Your task to perform on an android device: install app "Expedia: Hotels, Flights & Car" Image 0: 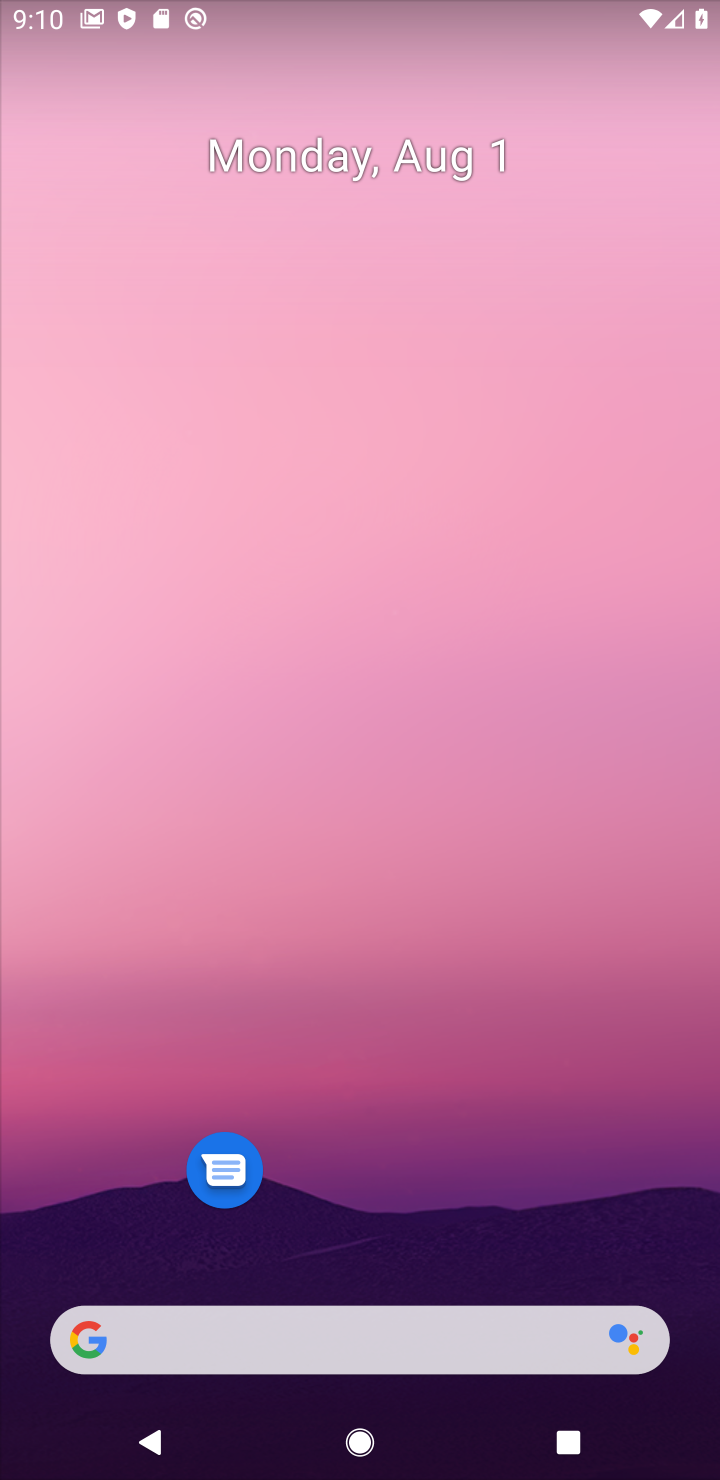
Step 0: drag from (435, 457) to (281, 817)
Your task to perform on an android device: install app "Expedia: Hotels, Flights & Car" Image 1: 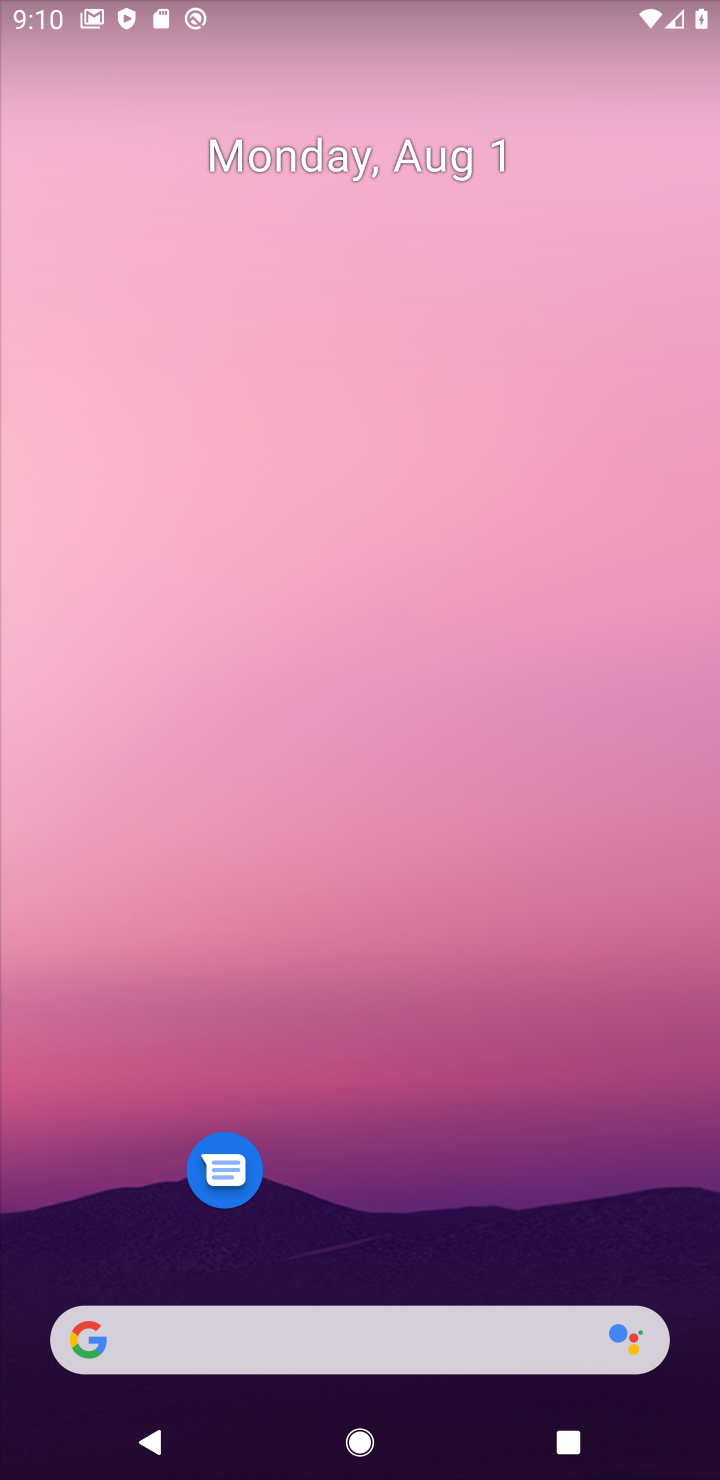
Step 1: drag from (472, 1092) to (404, 615)
Your task to perform on an android device: install app "Expedia: Hotels, Flights & Car" Image 2: 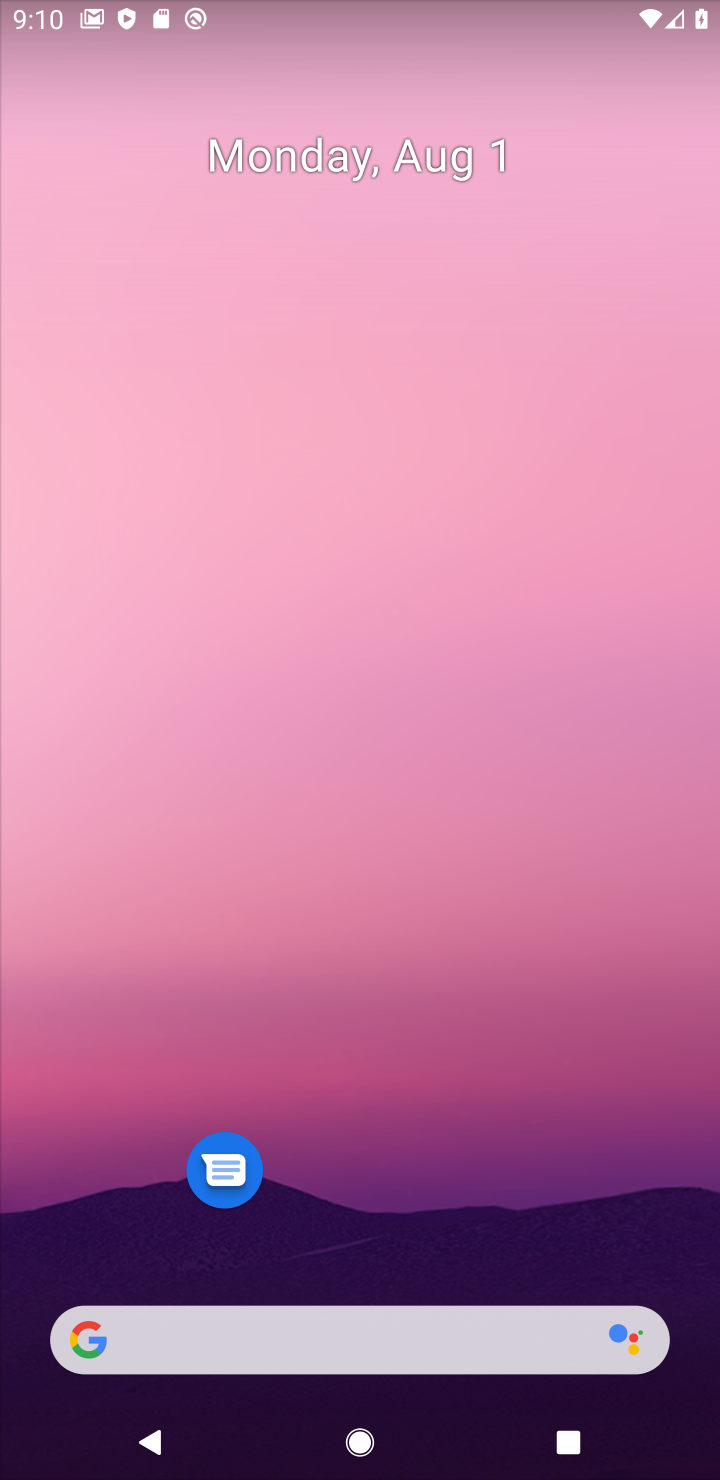
Step 2: drag from (462, 748) to (295, 224)
Your task to perform on an android device: install app "Expedia: Hotels, Flights & Car" Image 3: 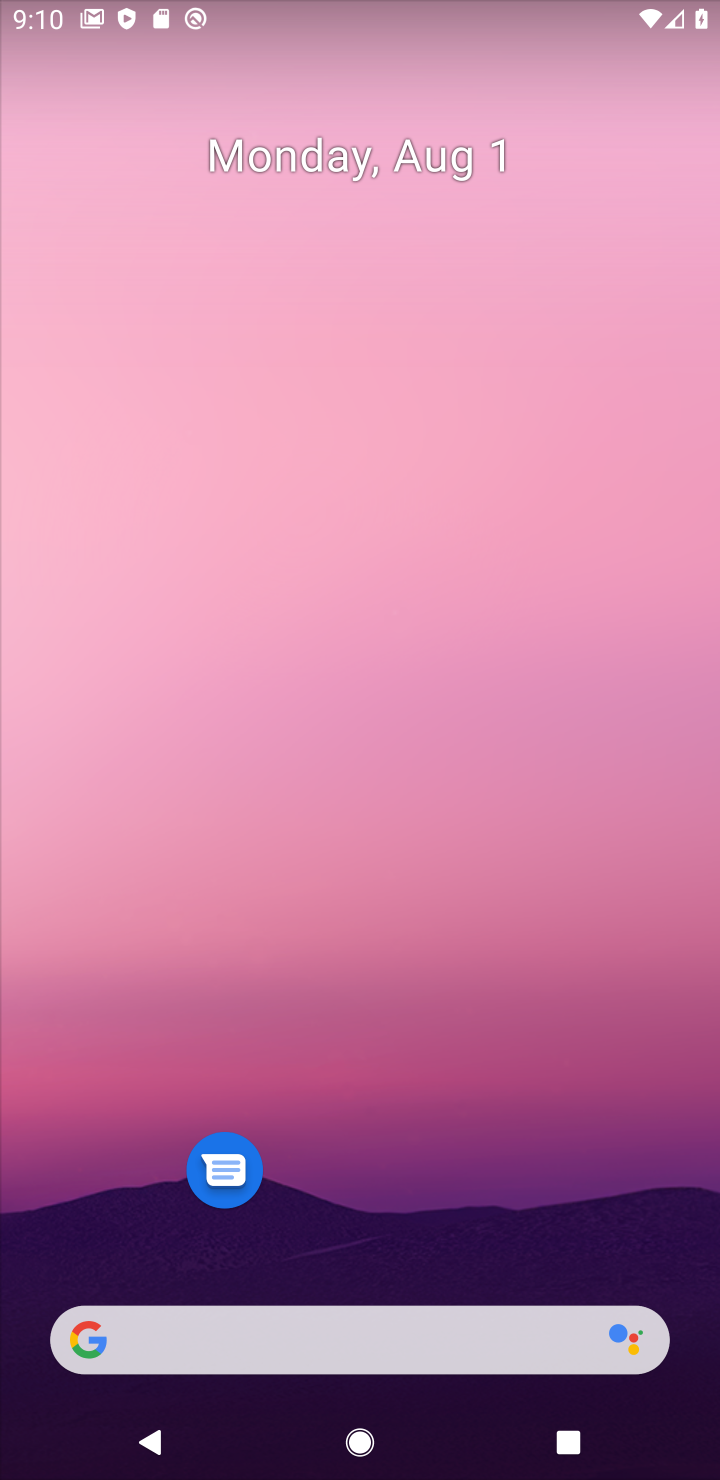
Step 3: drag from (358, 822) to (337, 332)
Your task to perform on an android device: install app "Expedia: Hotels, Flights & Car" Image 4: 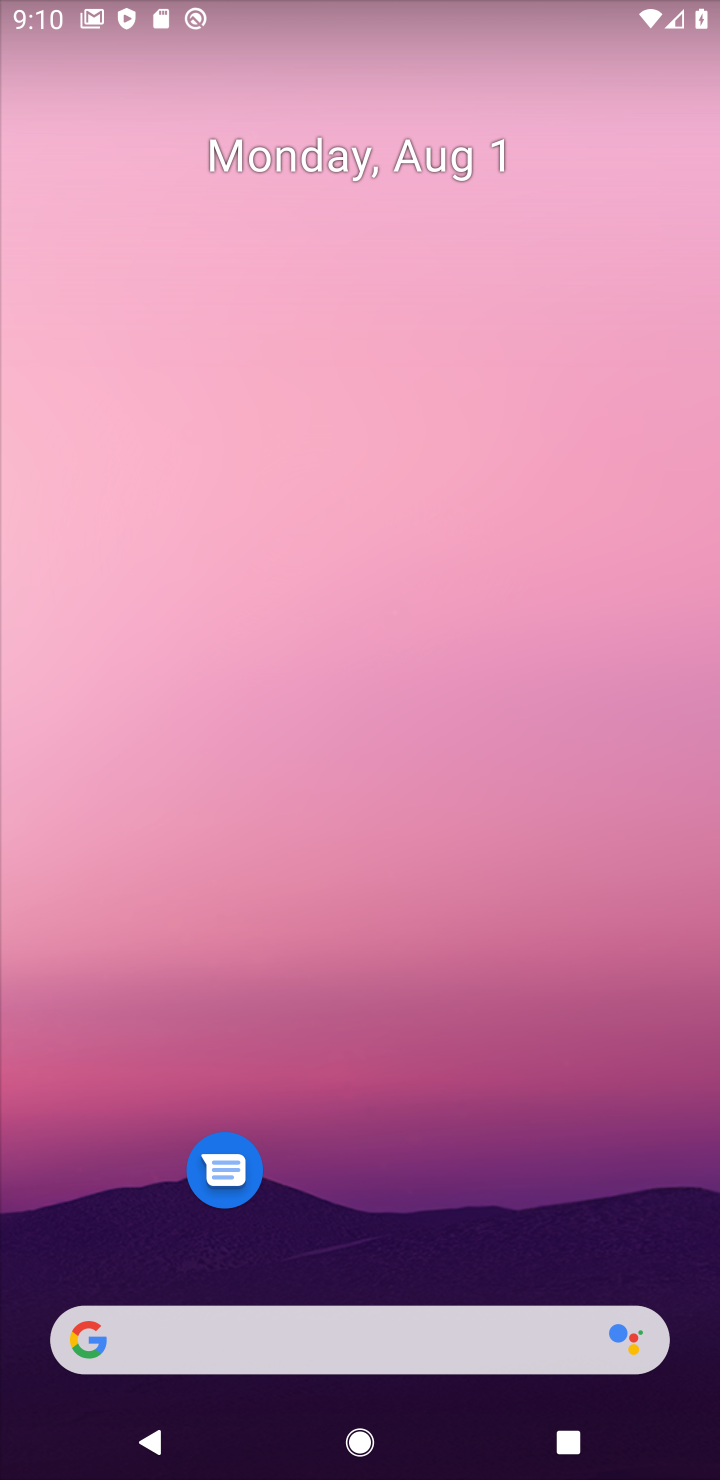
Step 4: drag from (300, 68) to (357, 346)
Your task to perform on an android device: install app "Expedia: Hotels, Flights & Car" Image 5: 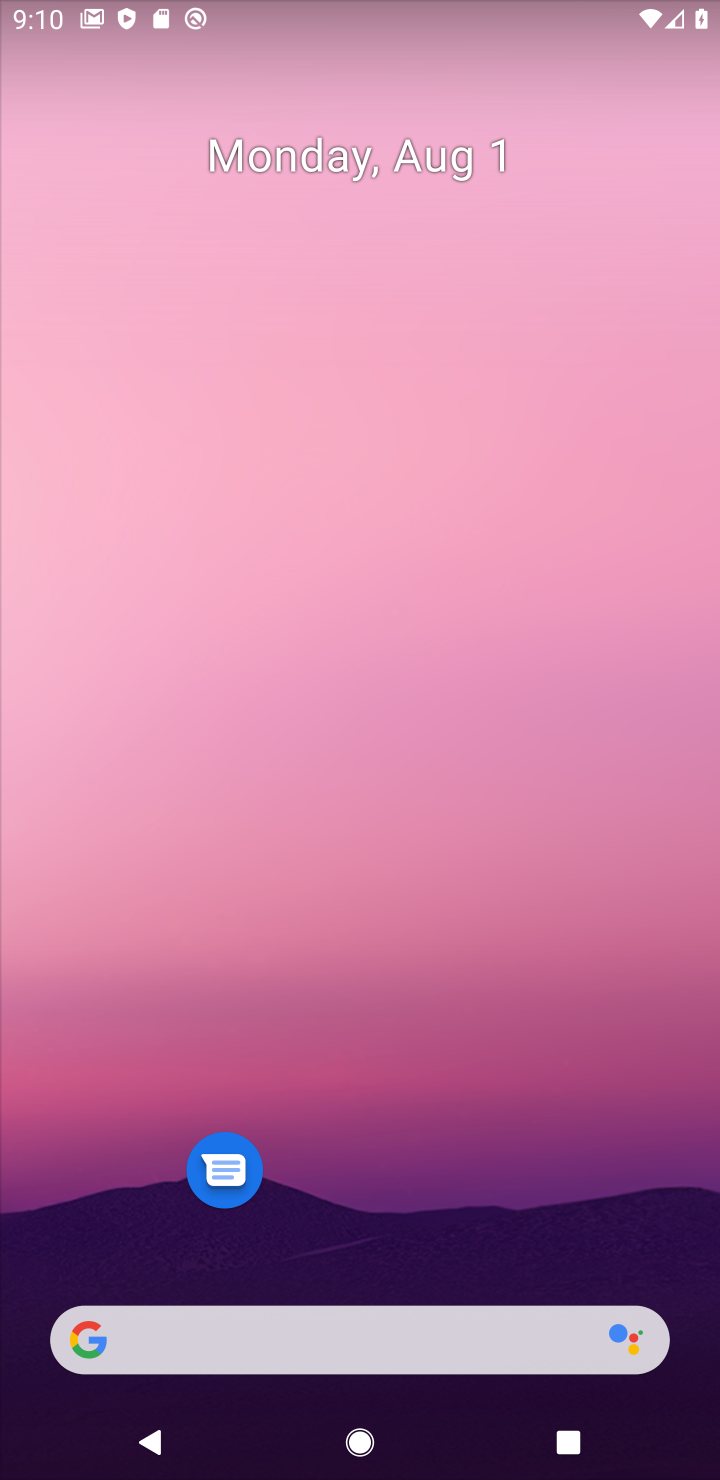
Step 5: drag from (364, 513) to (325, 218)
Your task to perform on an android device: install app "Expedia: Hotels, Flights & Car" Image 6: 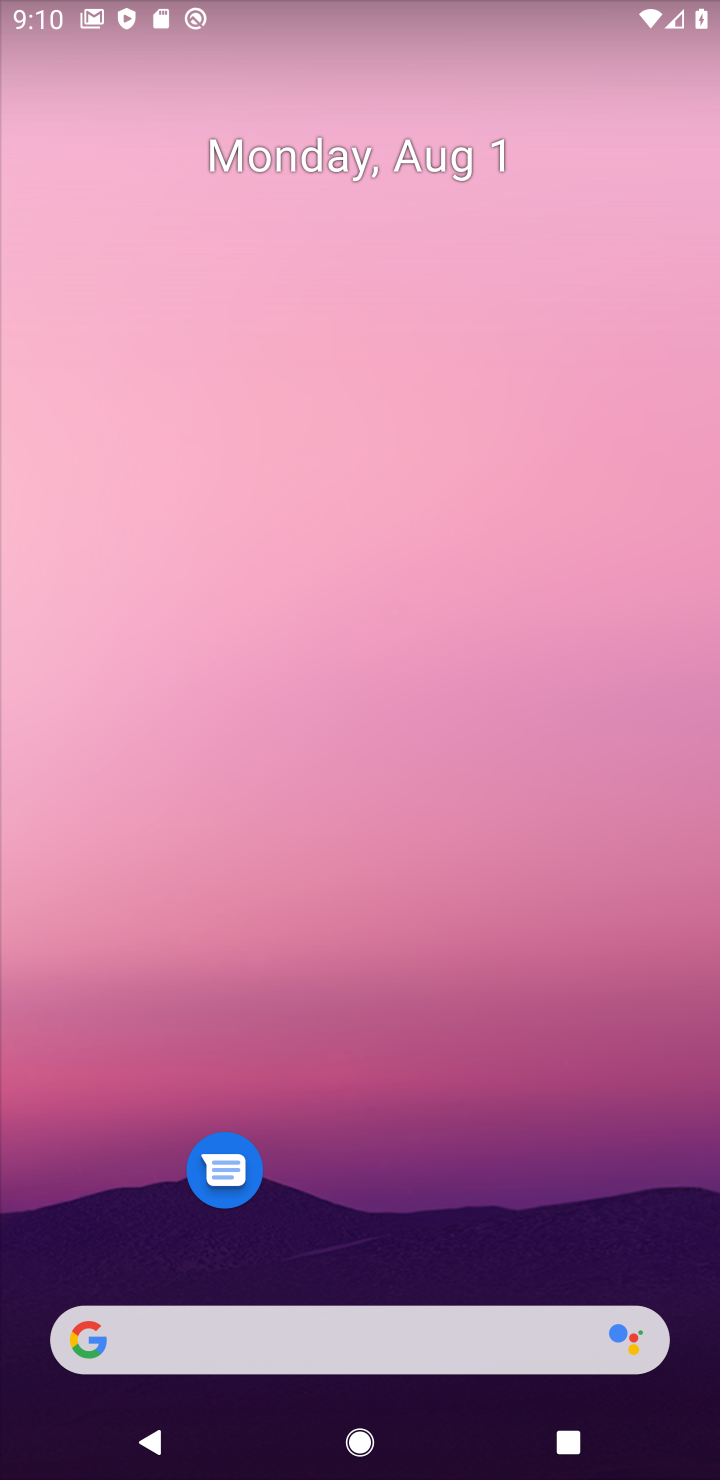
Step 6: drag from (242, 933) to (401, 121)
Your task to perform on an android device: install app "Expedia: Hotels, Flights & Car" Image 7: 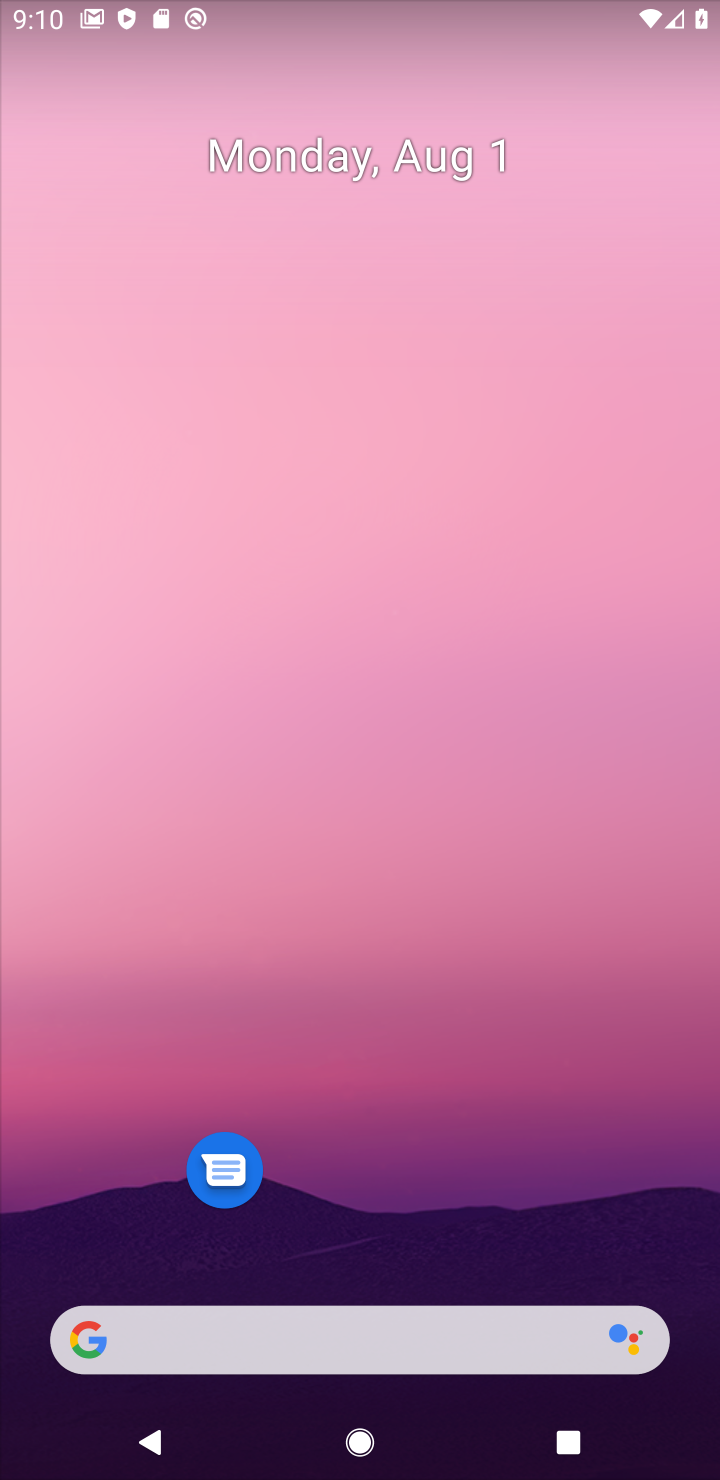
Step 7: drag from (453, 580) to (488, 268)
Your task to perform on an android device: install app "Expedia: Hotels, Flights & Car" Image 8: 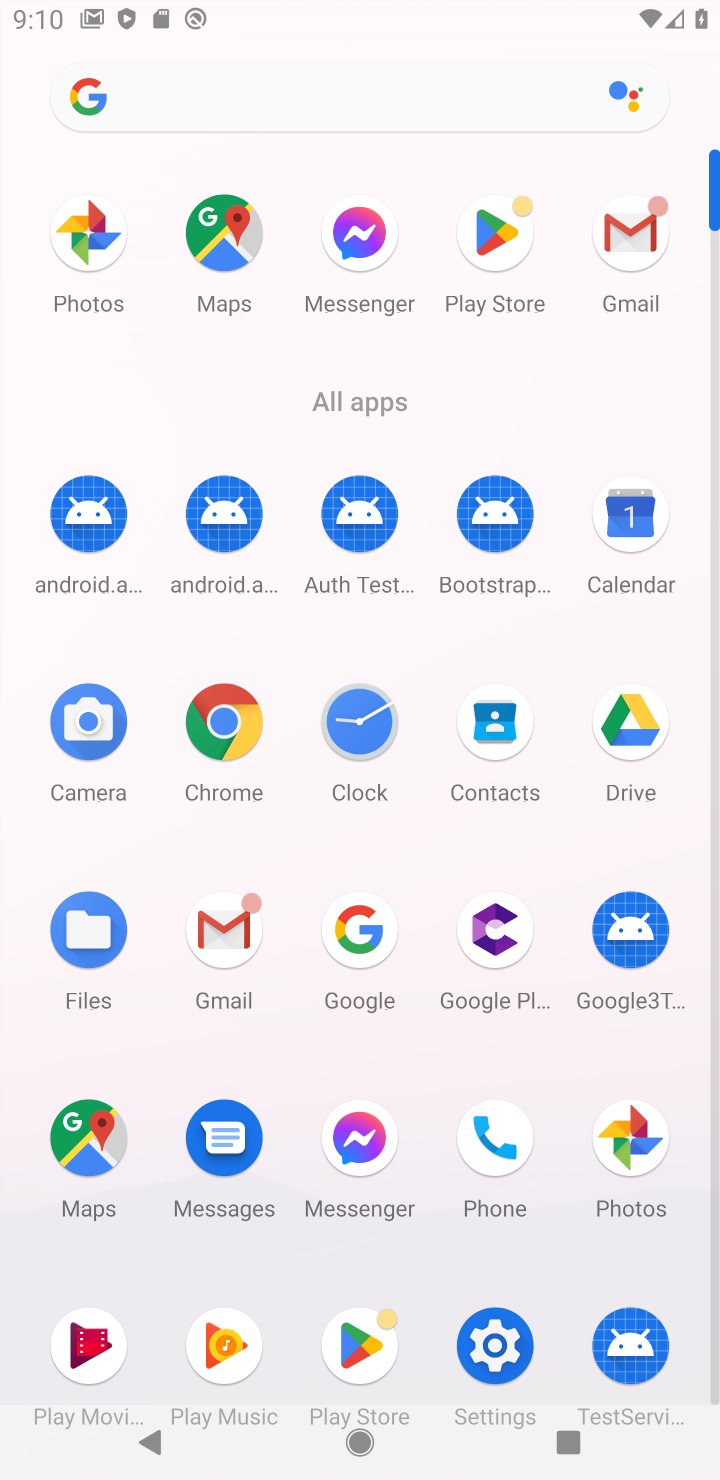
Step 8: drag from (505, 682) to (436, 313)
Your task to perform on an android device: install app "Expedia: Hotels, Flights & Car" Image 9: 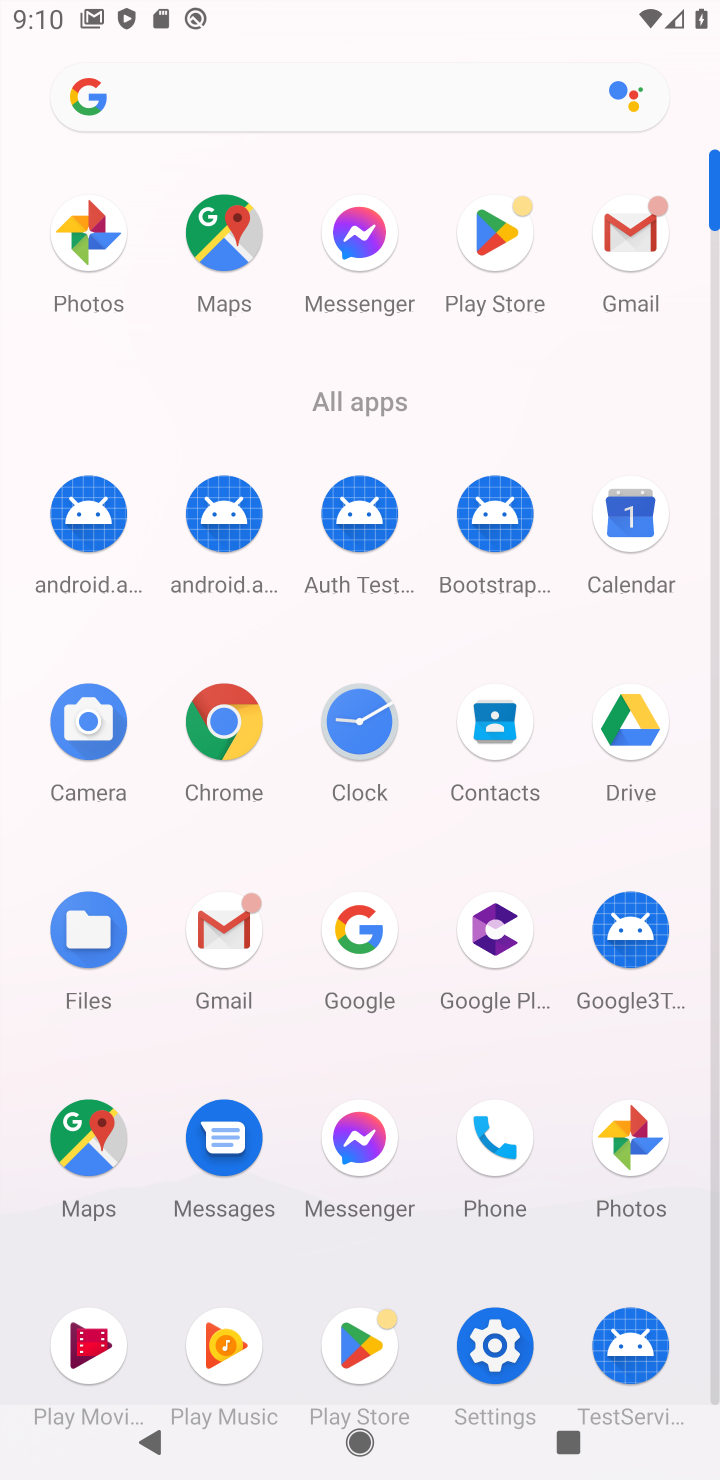
Step 9: click (493, 235)
Your task to perform on an android device: install app "Expedia: Hotels, Flights & Car" Image 10: 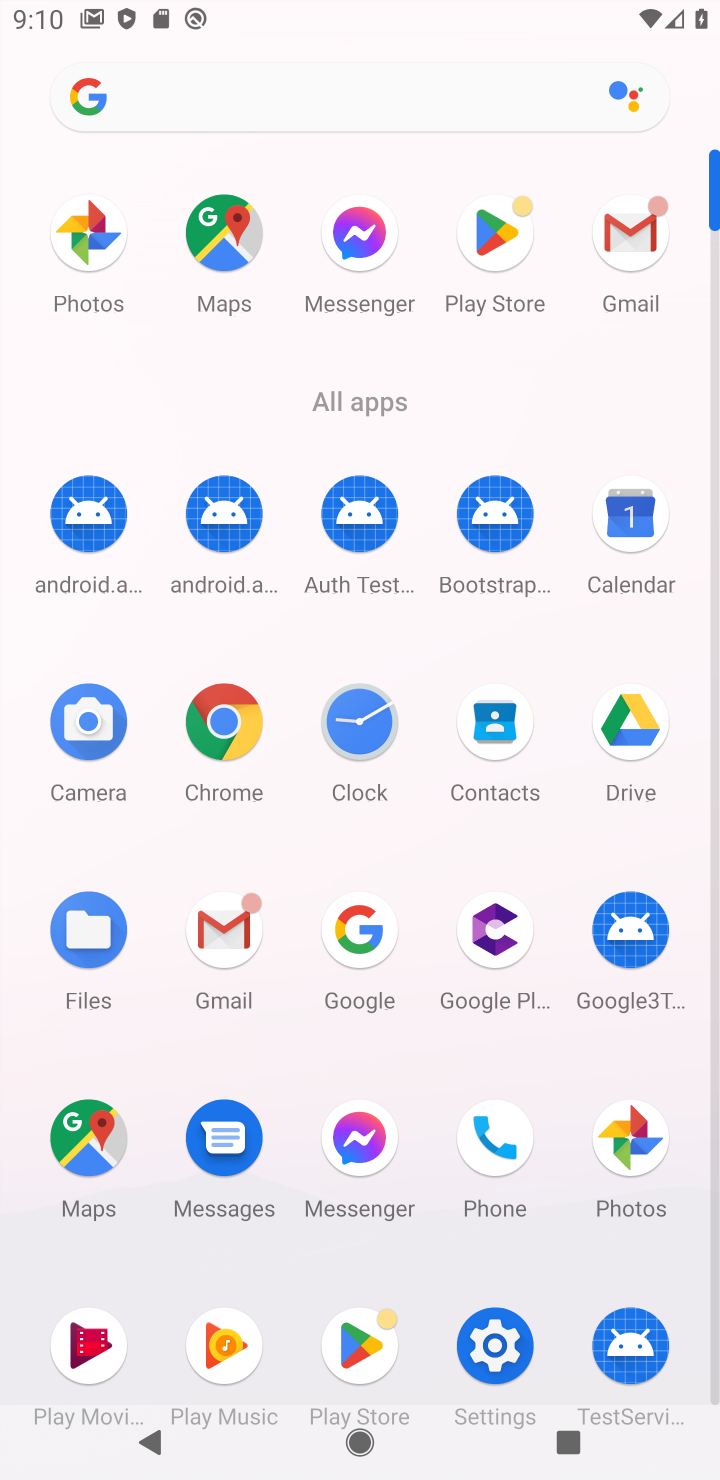
Step 10: click (498, 240)
Your task to perform on an android device: install app "Expedia: Hotels, Flights & Car" Image 11: 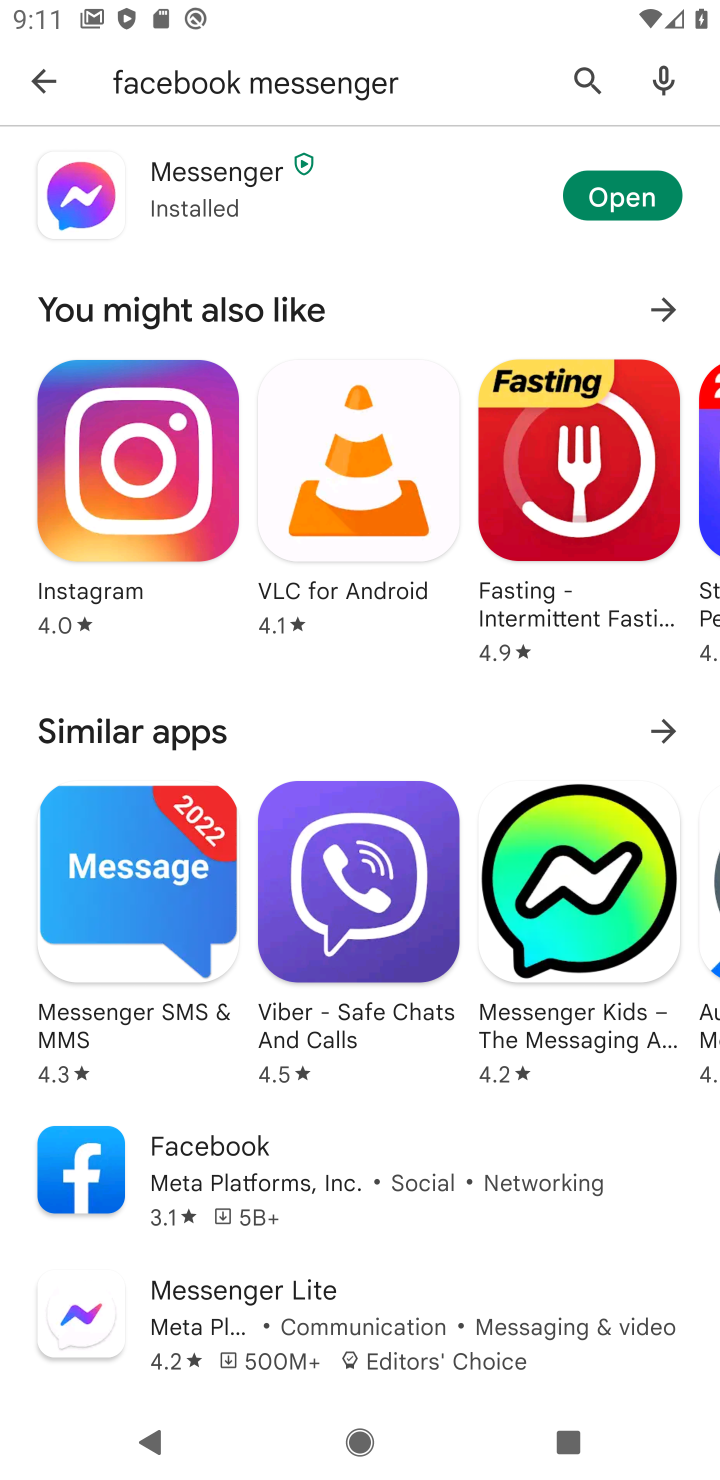
Step 11: click (48, 63)
Your task to perform on an android device: install app "Expedia: Hotels, Flights & Car" Image 12: 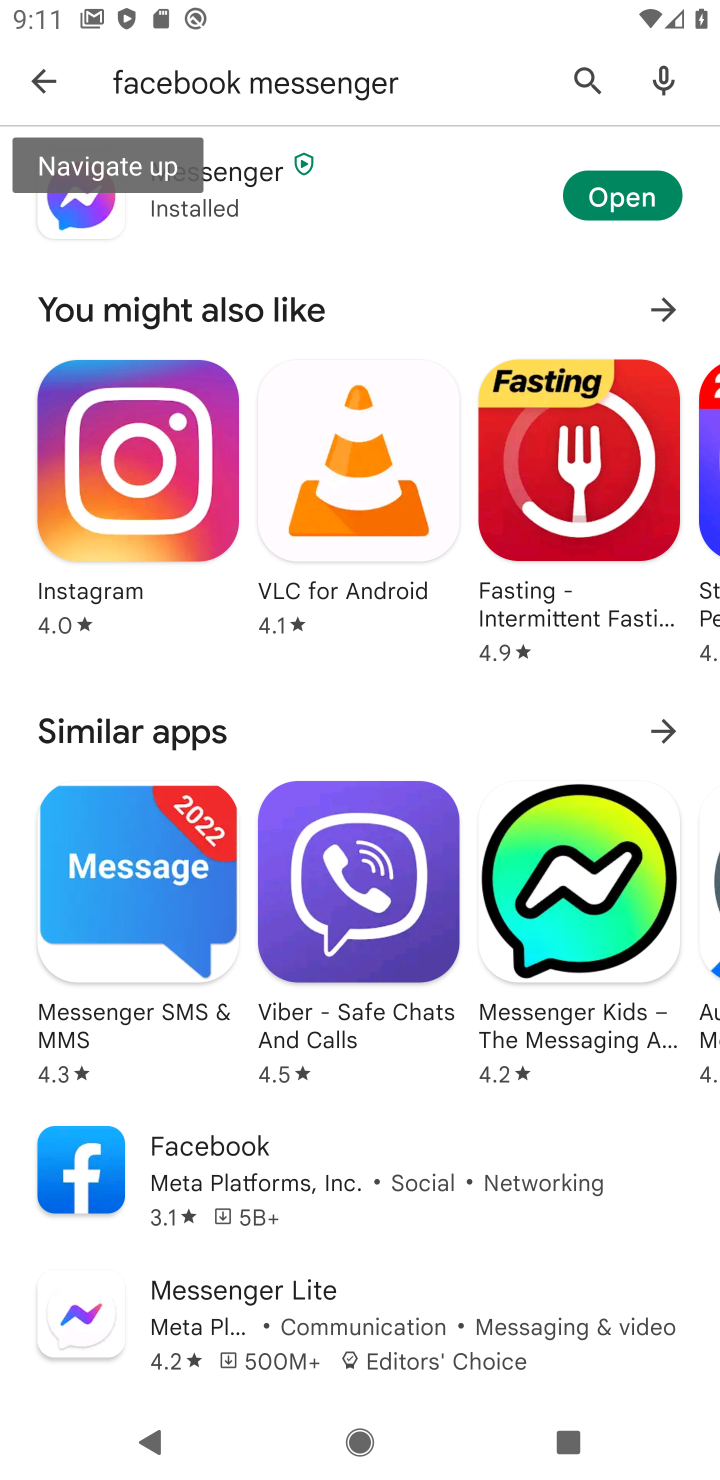
Step 12: click (152, 70)
Your task to perform on an android device: install app "Expedia: Hotels, Flights & Car" Image 13: 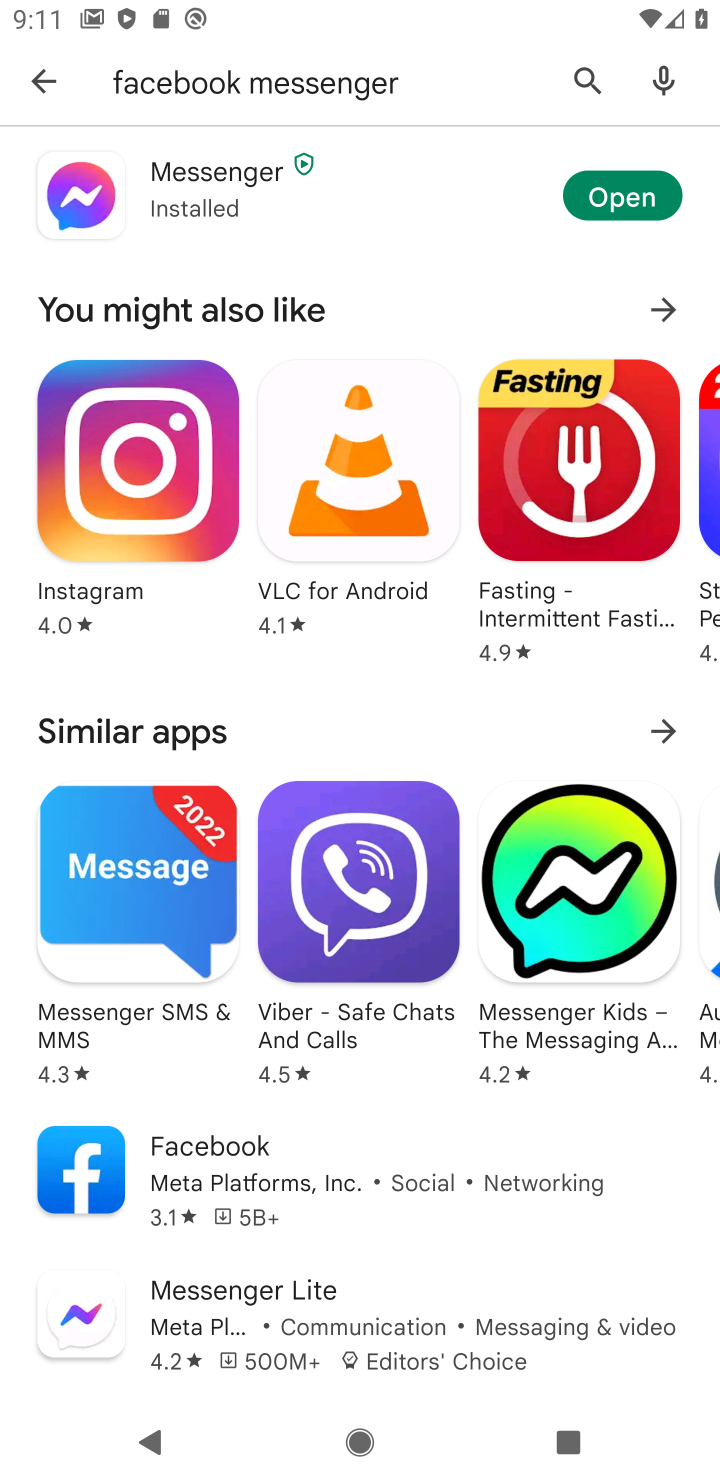
Step 13: click (182, 70)
Your task to perform on an android device: install app "Expedia: Hotels, Flights & Car" Image 14: 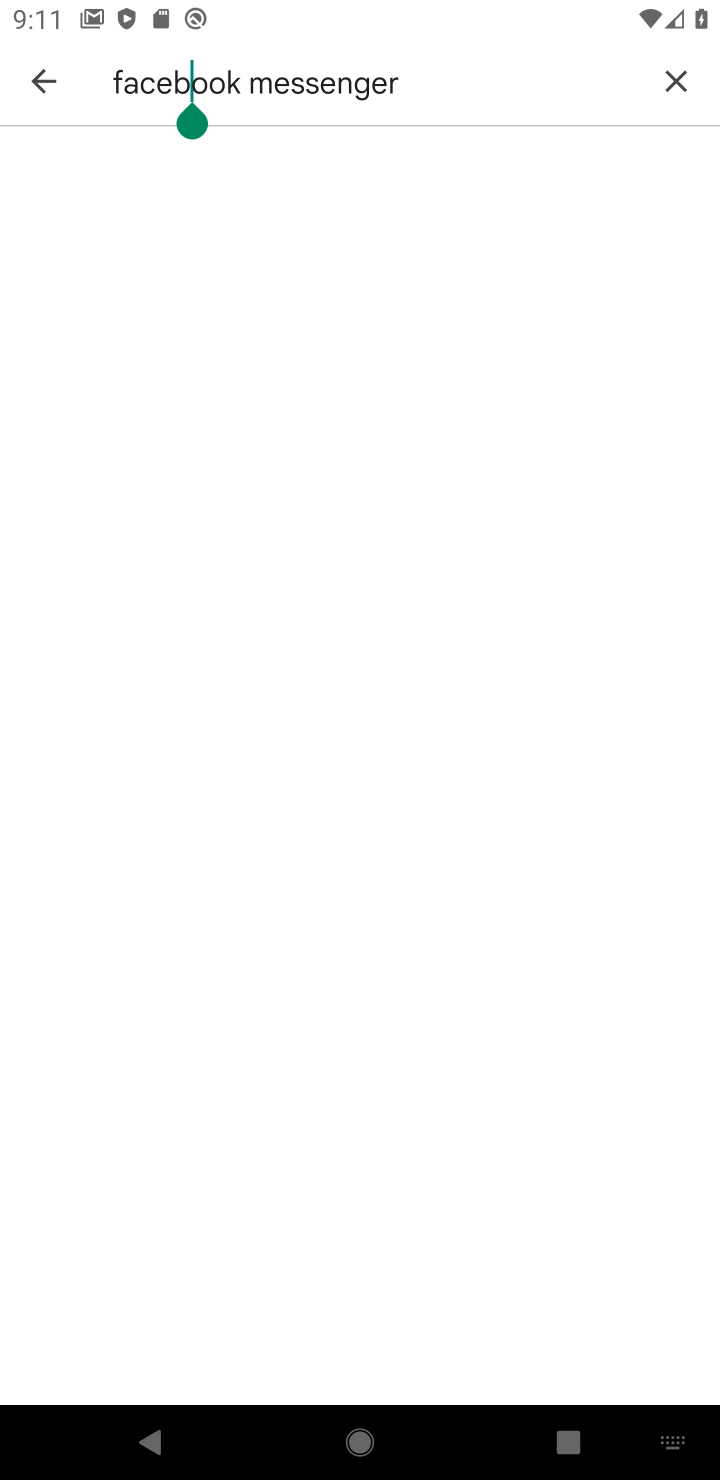
Step 14: click (674, 78)
Your task to perform on an android device: install app "Expedia: Hotels, Flights & Car" Image 15: 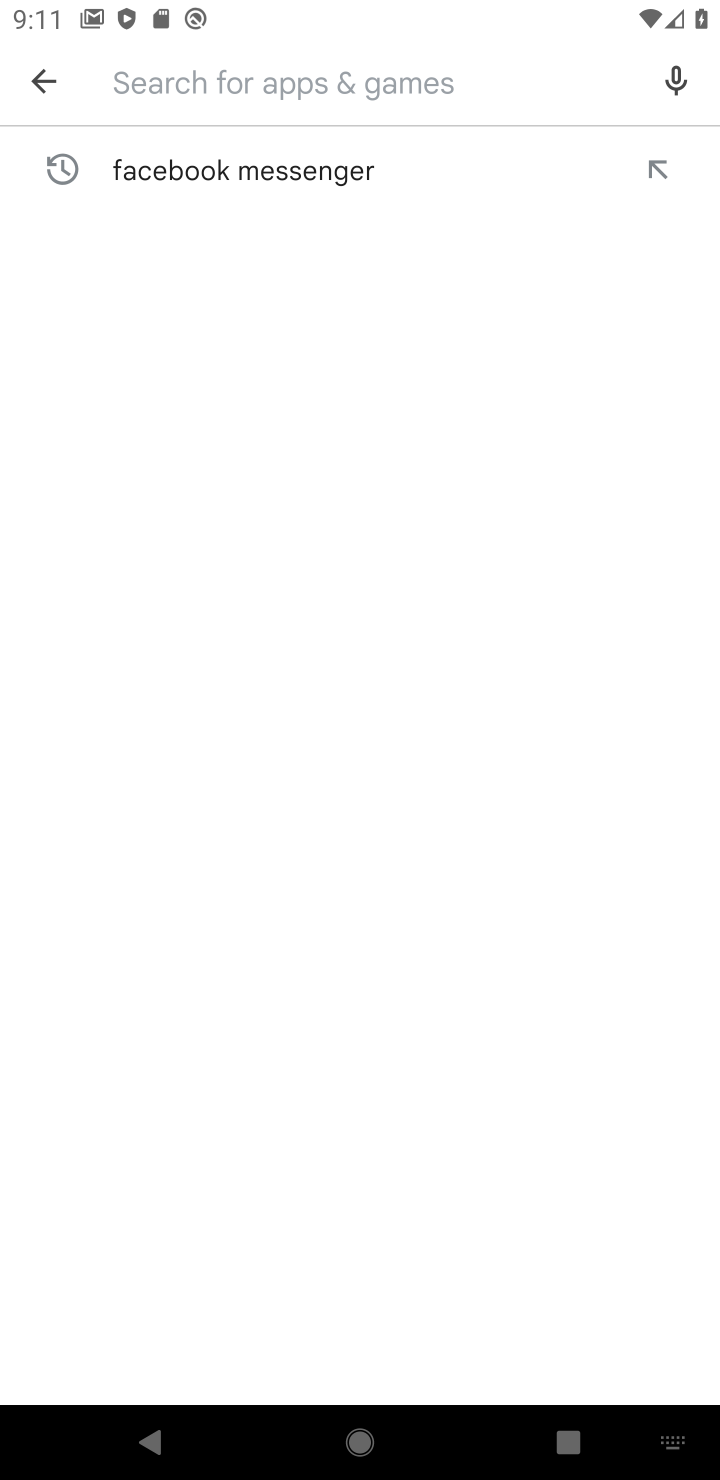
Step 15: type "Expedia"
Your task to perform on an android device: install app "Expedia: Hotels, Flights & Car" Image 16: 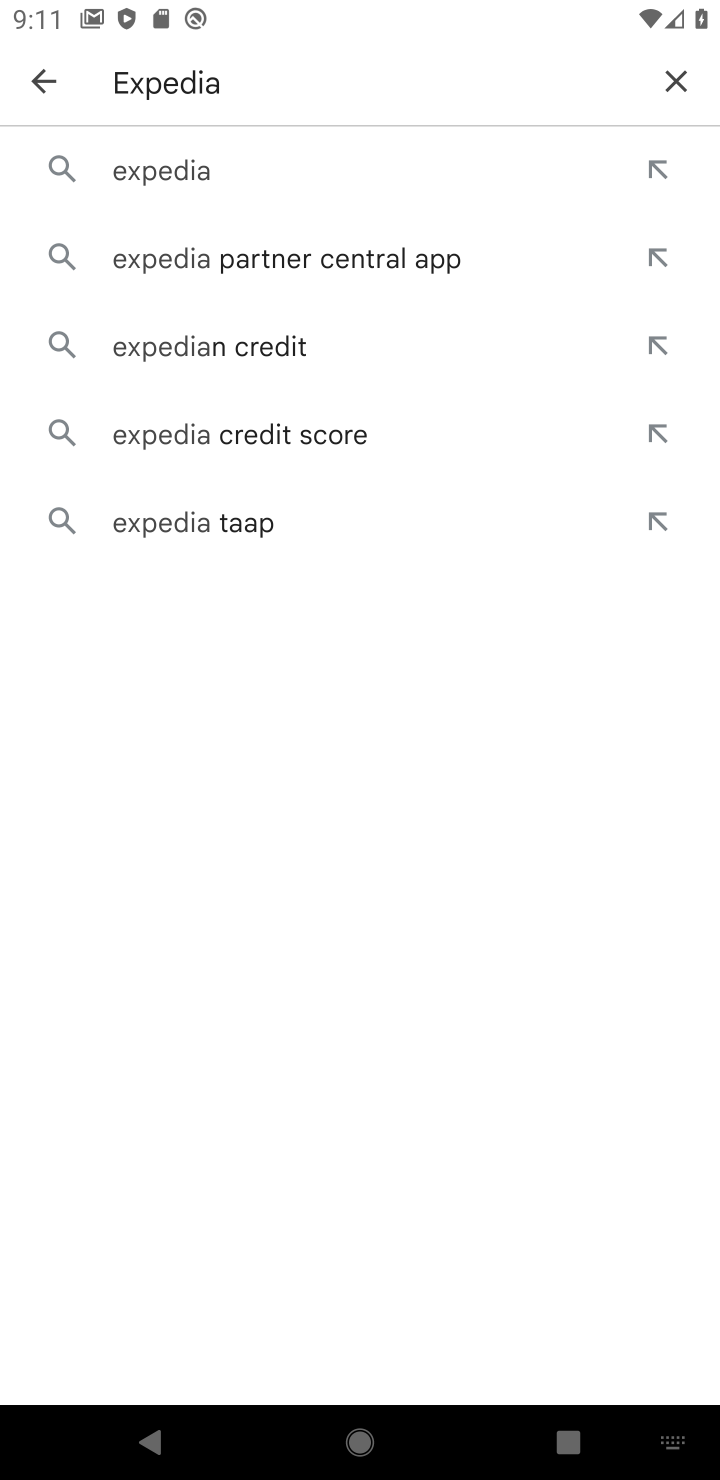
Step 16: click (150, 178)
Your task to perform on an android device: install app "Expedia: Hotels, Flights & Car" Image 17: 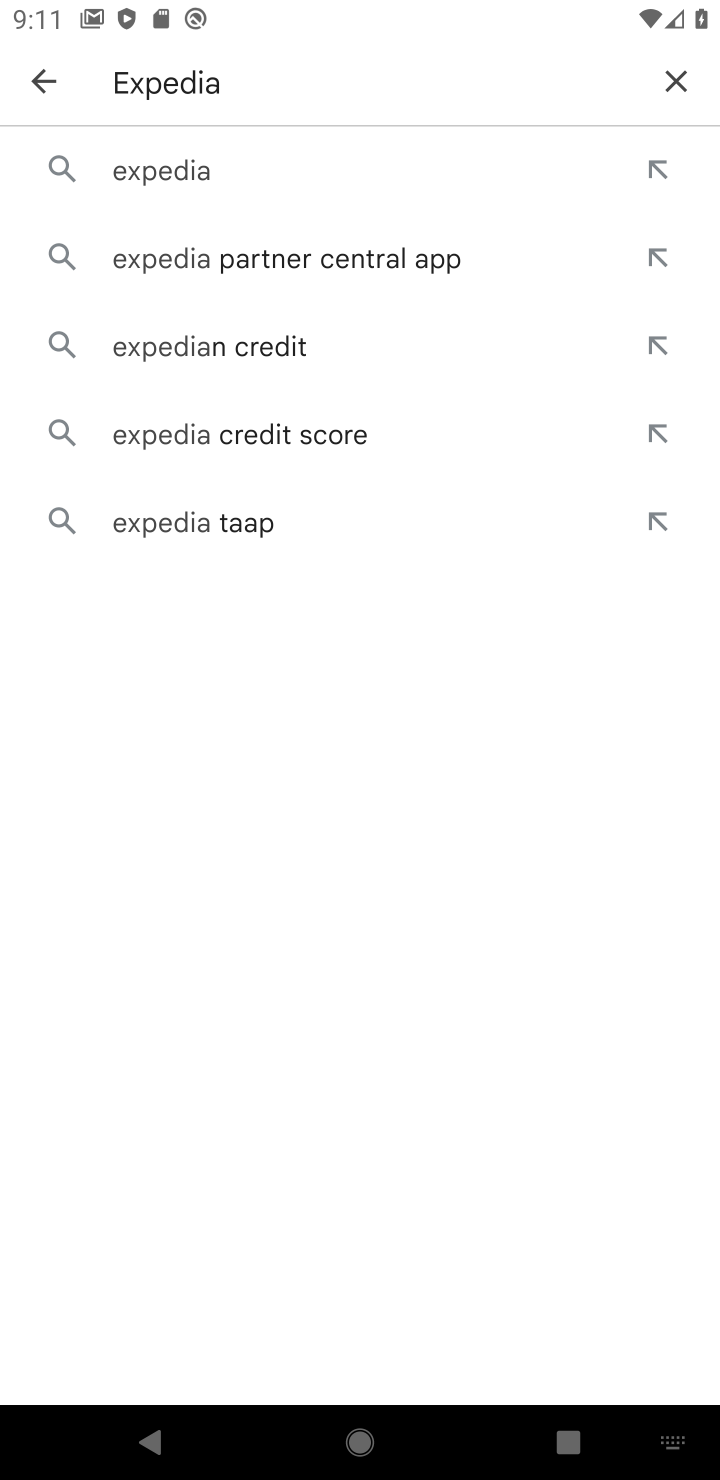
Step 17: click (150, 178)
Your task to perform on an android device: install app "Expedia: Hotels, Flights & Car" Image 18: 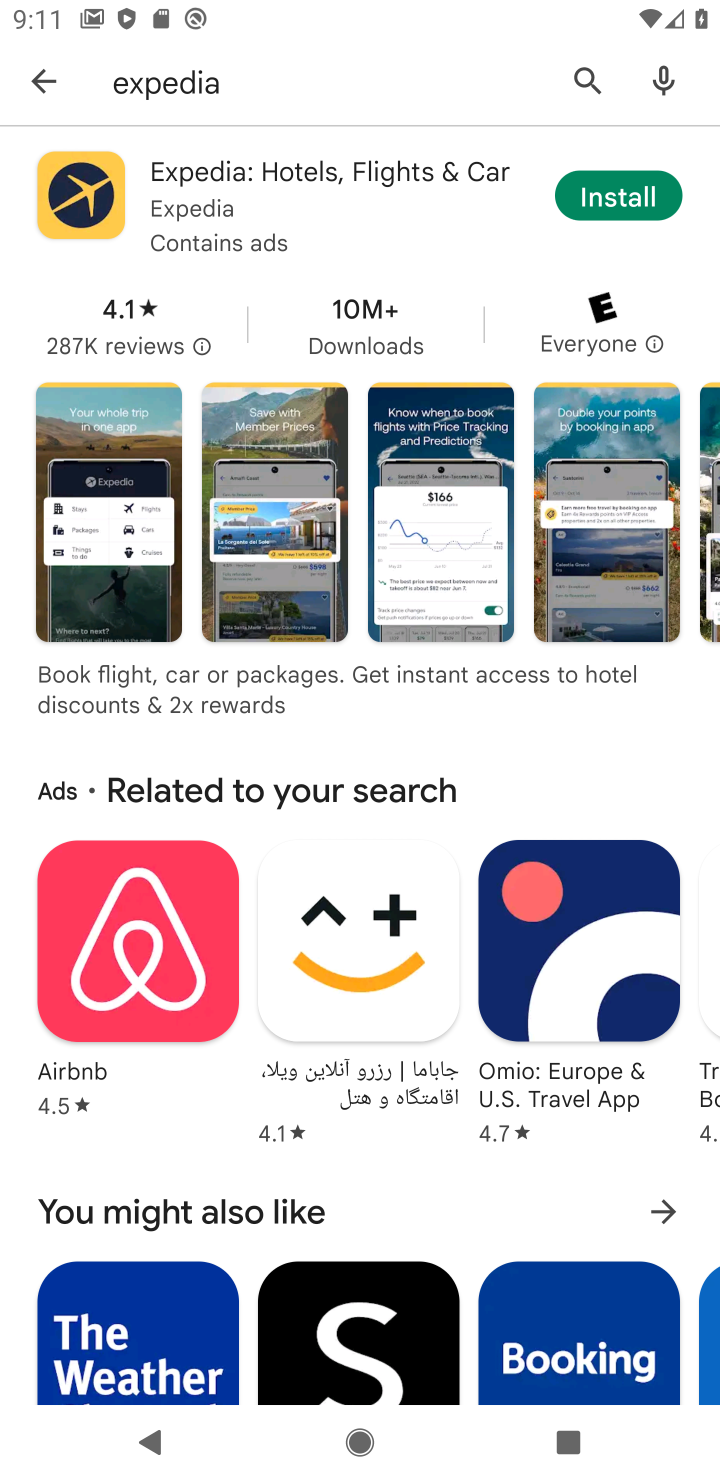
Step 18: click (627, 206)
Your task to perform on an android device: install app "Expedia: Hotels, Flights & Car" Image 19: 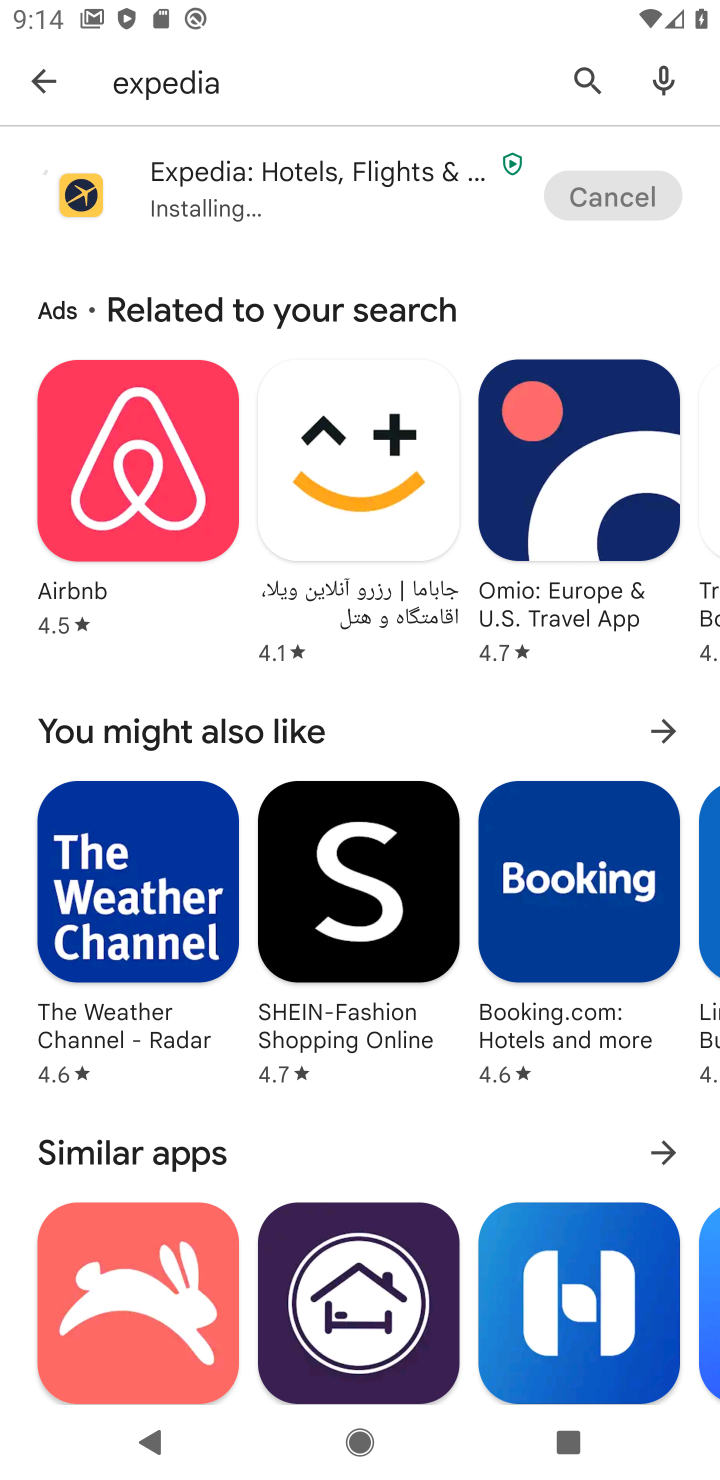
Step 19: click (585, 194)
Your task to perform on an android device: install app "Expedia: Hotels, Flights & Car" Image 20: 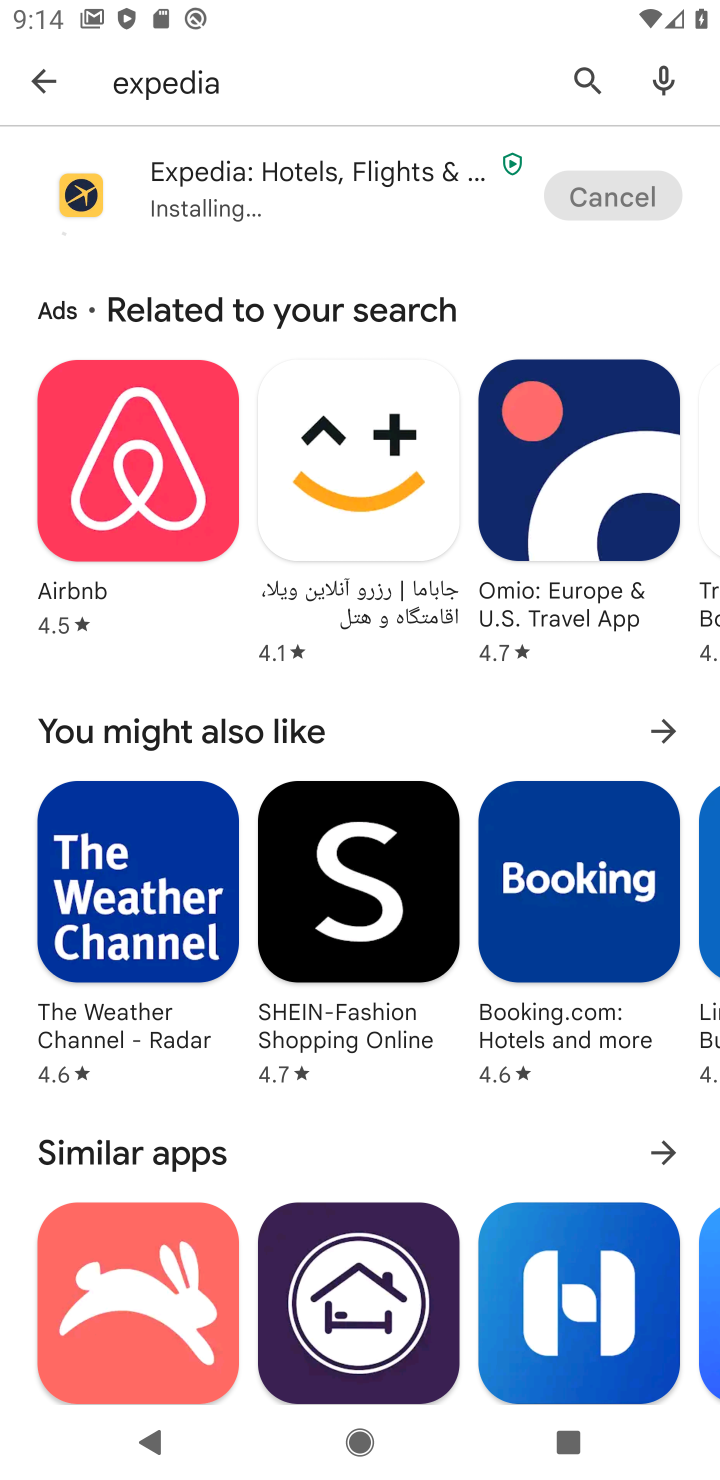
Step 20: click (598, 208)
Your task to perform on an android device: install app "Expedia: Hotels, Flights & Car" Image 21: 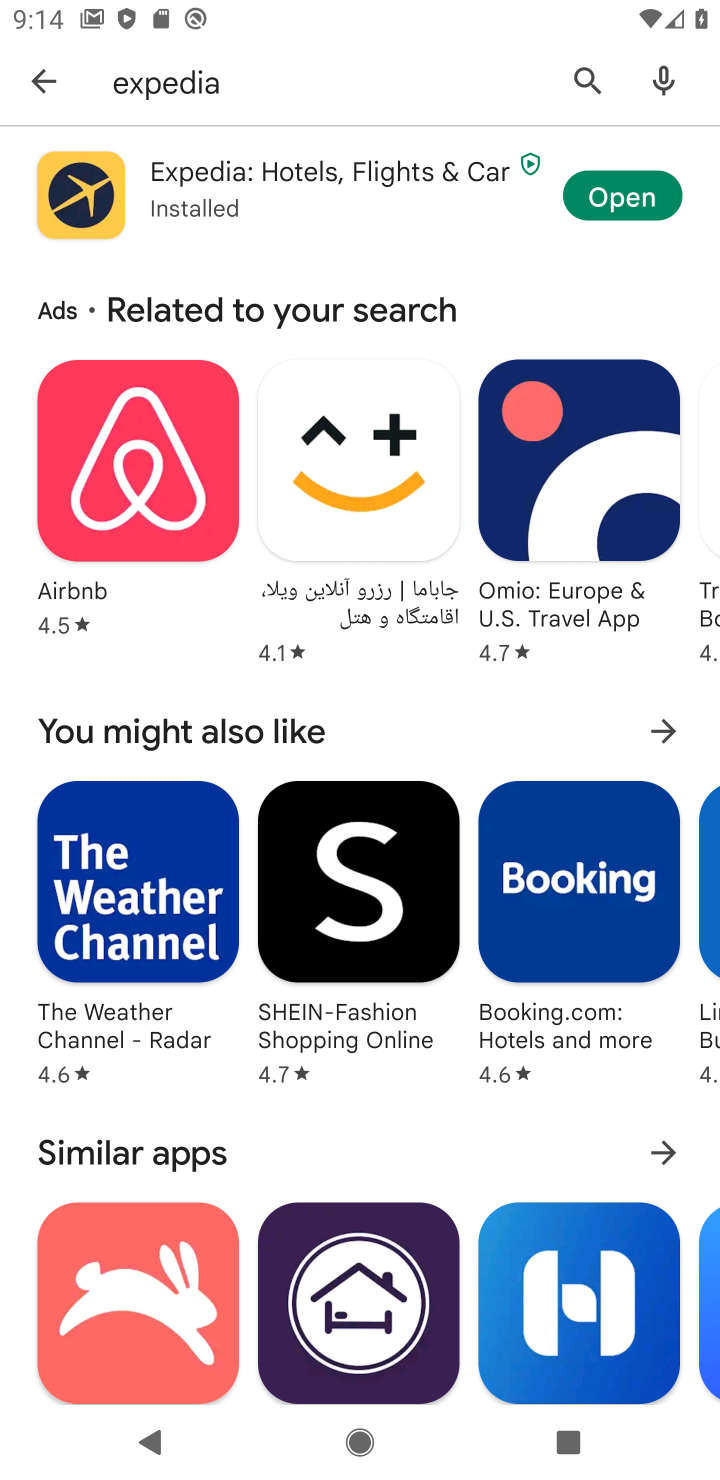
Step 21: click (628, 197)
Your task to perform on an android device: install app "Expedia: Hotels, Flights & Car" Image 22: 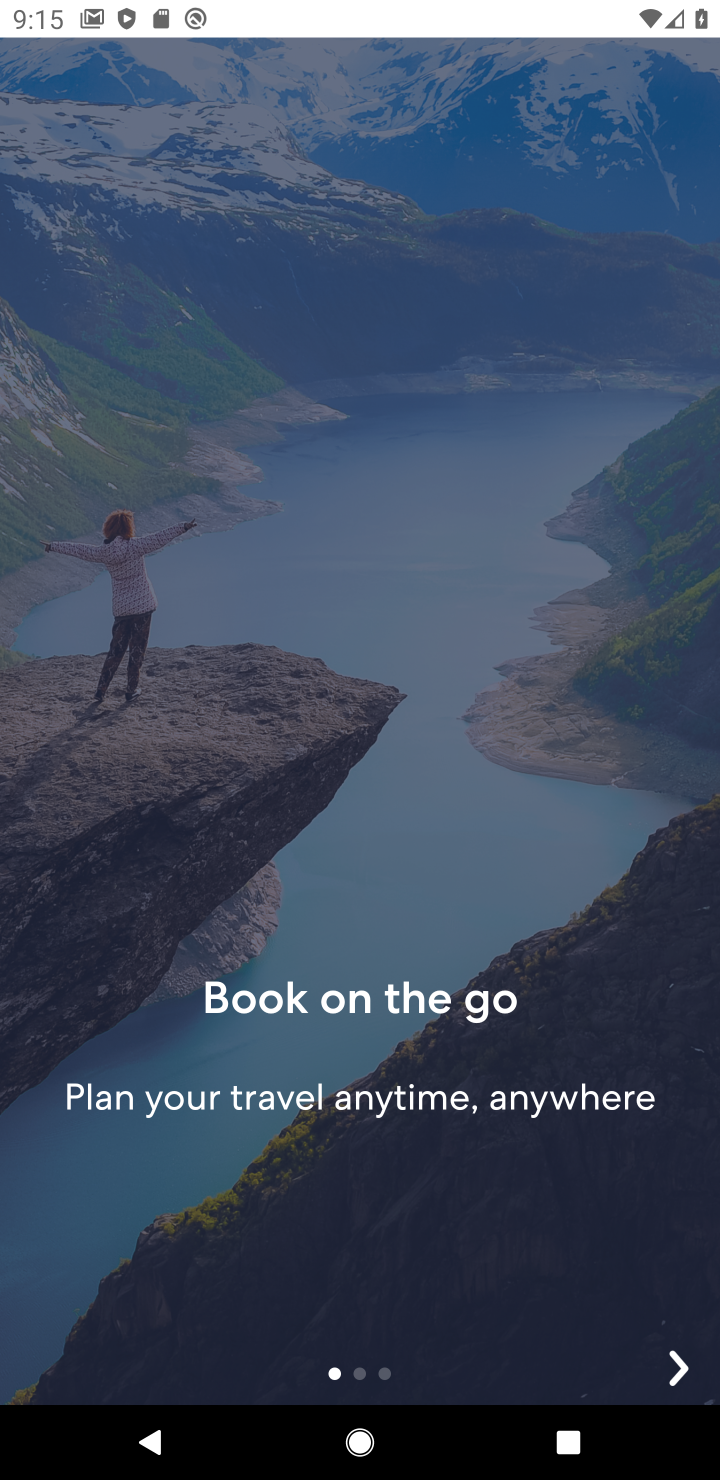
Step 22: task complete